Your task to perform on an android device: Go to ESPN.com Image 0: 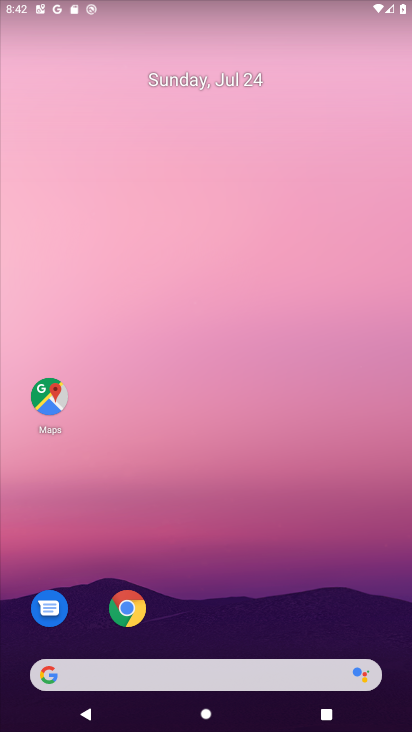
Step 0: click (126, 616)
Your task to perform on an android device: Go to ESPN.com Image 1: 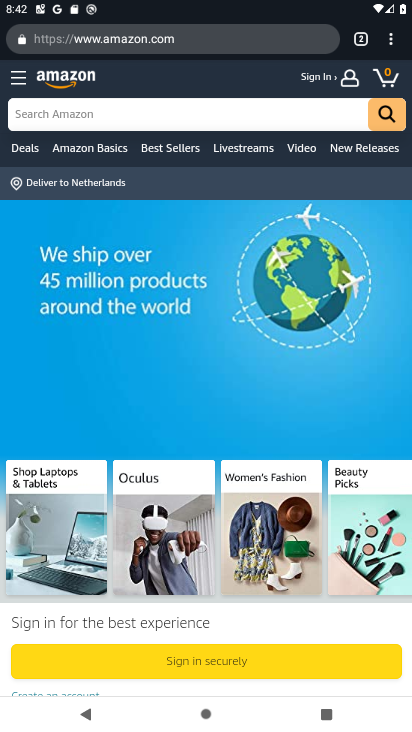
Step 1: click (363, 32)
Your task to perform on an android device: Go to ESPN.com Image 2: 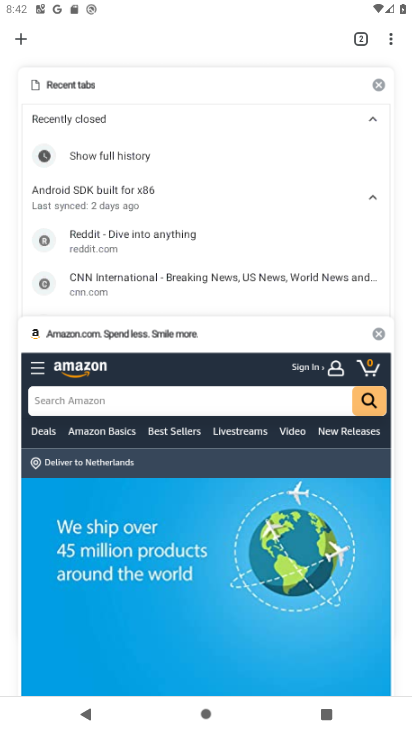
Step 2: click (28, 35)
Your task to perform on an android device: Go to ESPN.com Image 3: 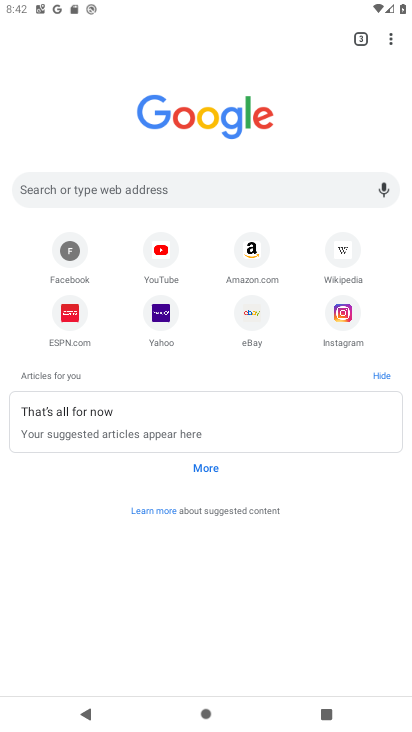
Step 3: click (71, 322)
Your task to perform on an android device: Go to ESPN.com Image 4: 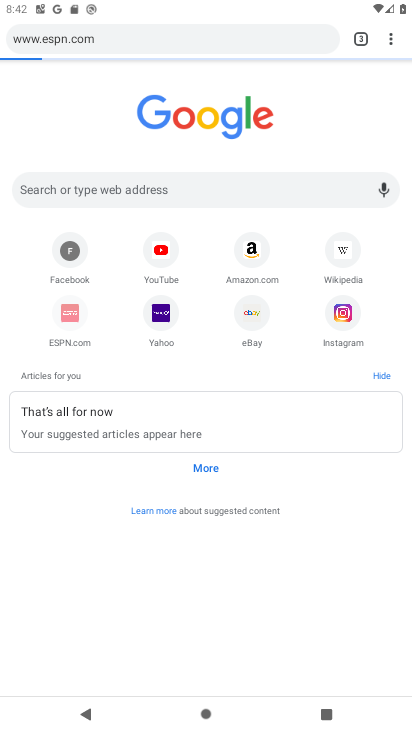
Step 4: click (71, 322)
Your task to perform on an android device: Go to ESPN.com Image 5: 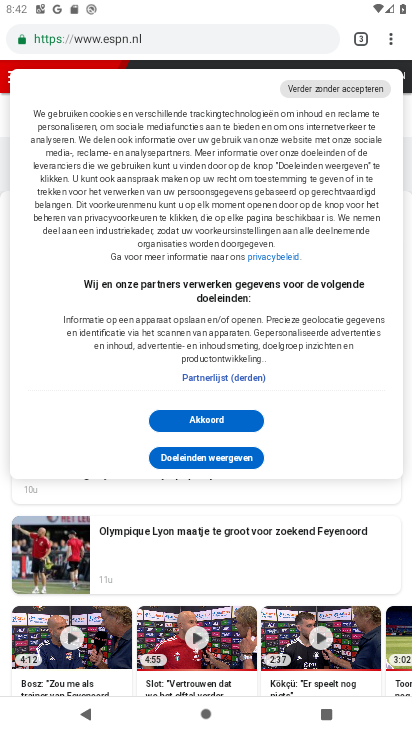
Step 5: task complete